Your task to perform on an android device: create a new album in the google photos Image 0: 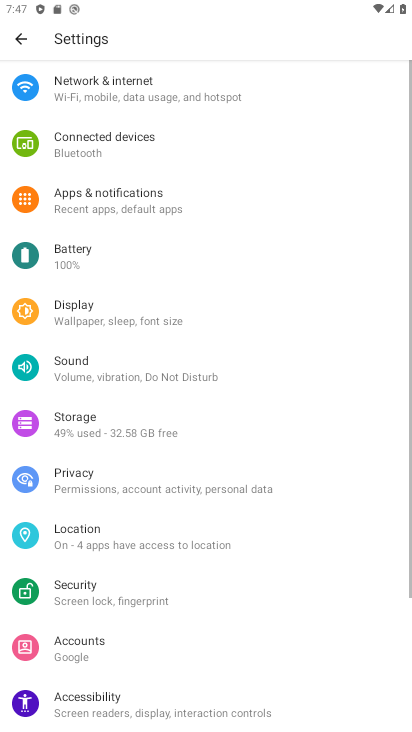
Step 0: press home button
Your task to perform on an android device: create a new album in the google photos Image 1: 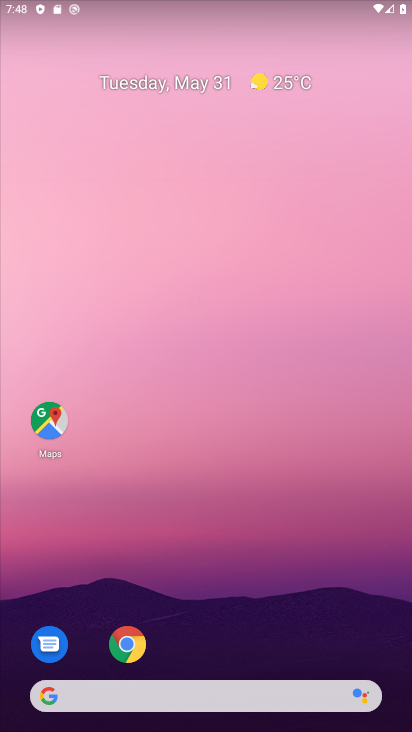
Step 1: click (294, 306)
Your task to perform on an android device: create a new album in the google photos Image 2: 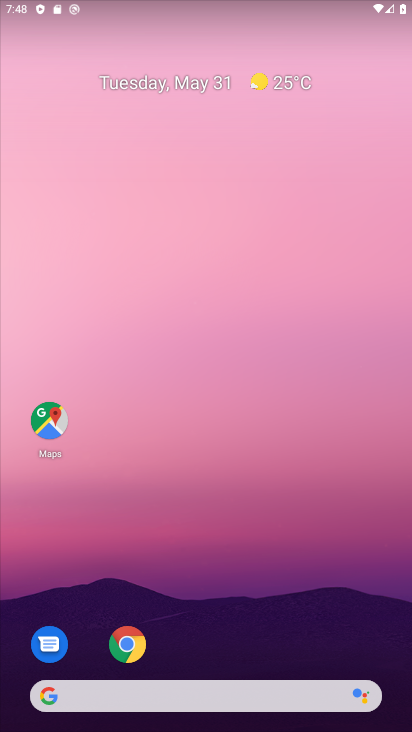
Step 2: drag from (203, 712) to (233, 232)
Your task to perform on an android device: create a new album in the google photos Image 3: 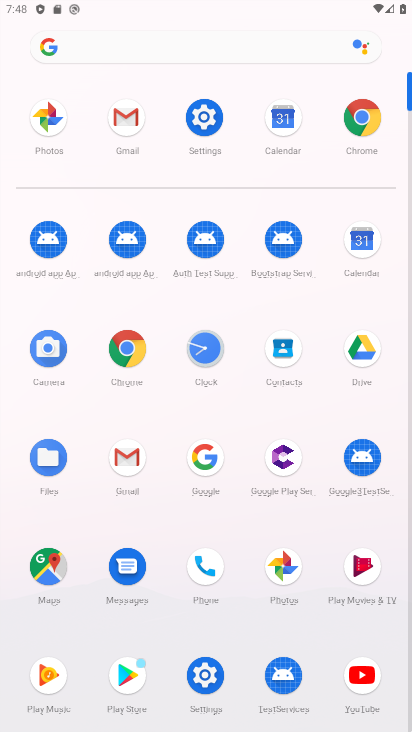
Step 3: click (292, 561)
Your task to perform on an android device: create a new album in the google photos Image 4: 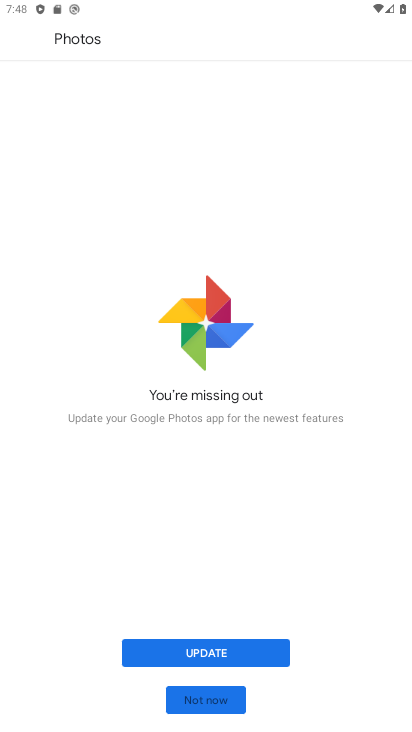
Step 4: click (201, 651)
Your task to perform on an android device: create a new album in the google photos Image 5: 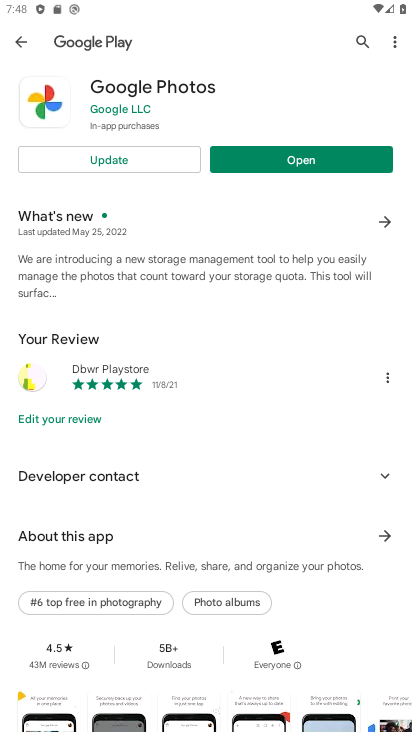
Step 5: click (96, 169)
Your task to perform on an android device: create a new album in the google photos Image 6: 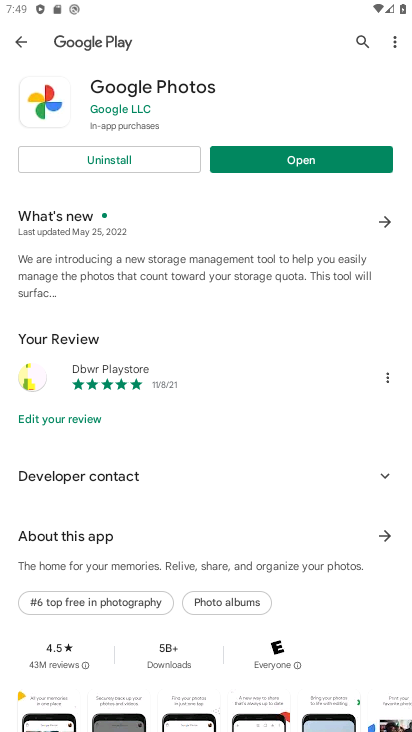
Step 6: click (280, 150)
Your task to perform on an android device: create a new album in the google photos Image 7: 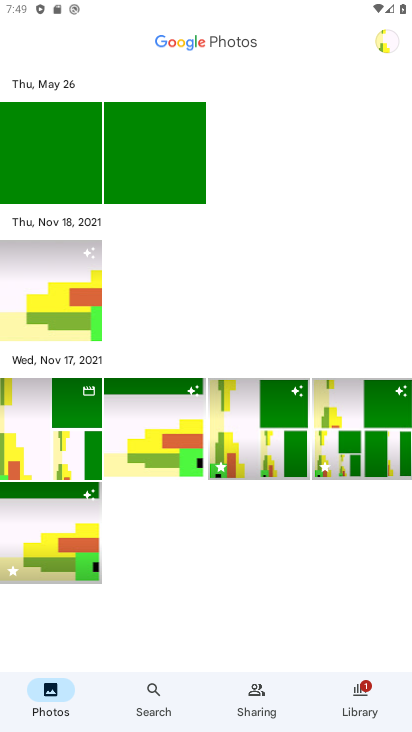
Step 7: click (166, 412)
Your task to perform on an android device: create a new album in the google photos Image 8: 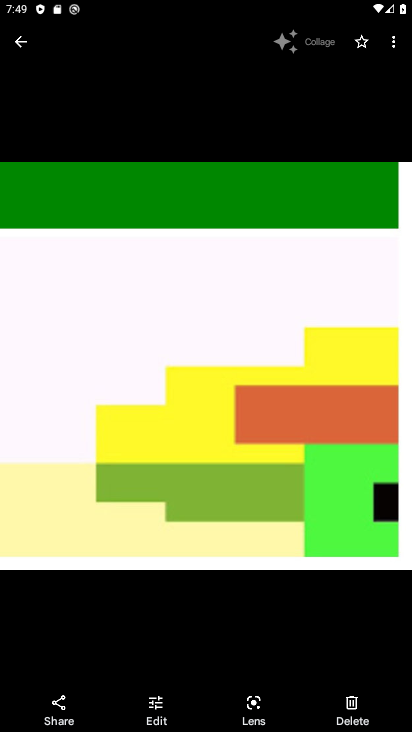
Step 8: click (396, 41)
Your task to perform on an android device: create a new album in the google photos Image 9: 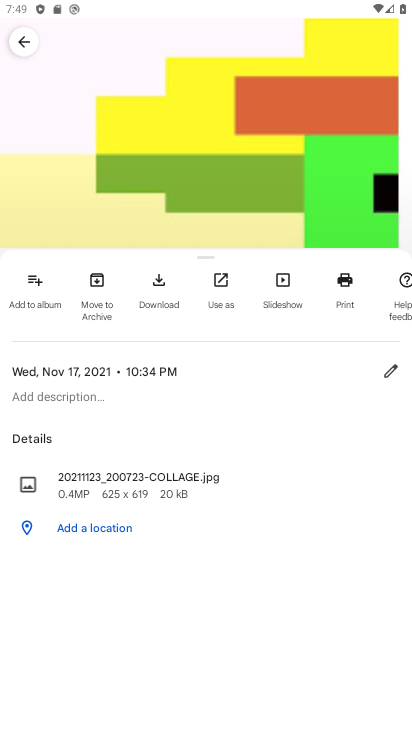
Step 9: click (34, 290)
Your task to perform on an android device: create a new album in the google photos Image 10: 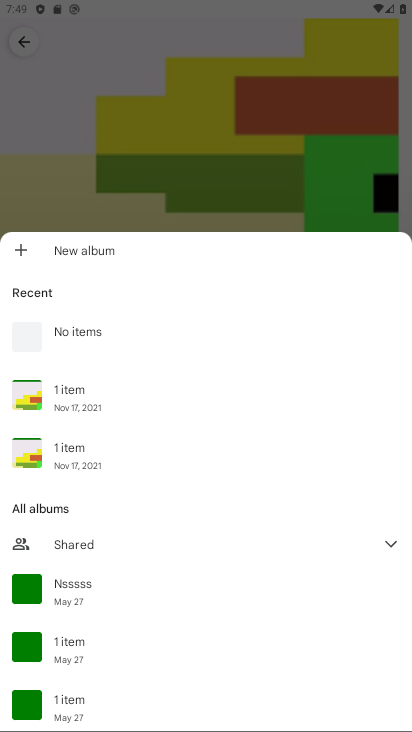
Step 10: click (27, 248)
Your task to perform on an android device: create a new album in the google photos Image 11: 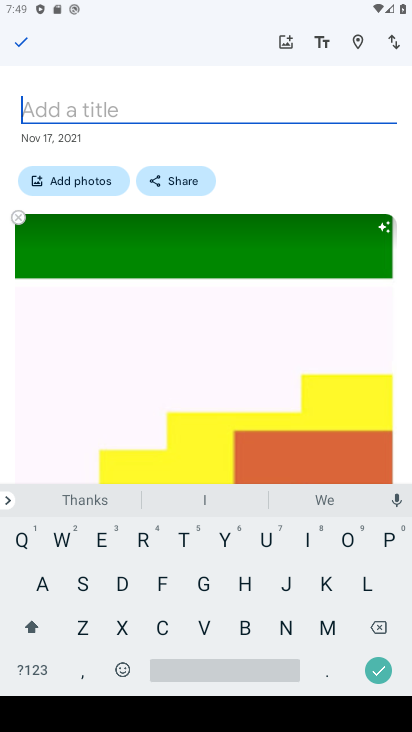
Step 11: click (194, 584)
Your task to perform on an android device: create a new album in the google photos Image 12: 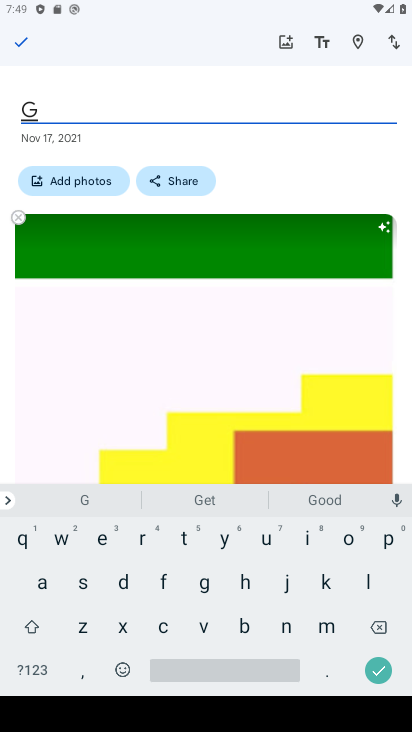
Step 12: click (200, 626)
Your task to perform on an android device: create a new album in the google photos Image 13: 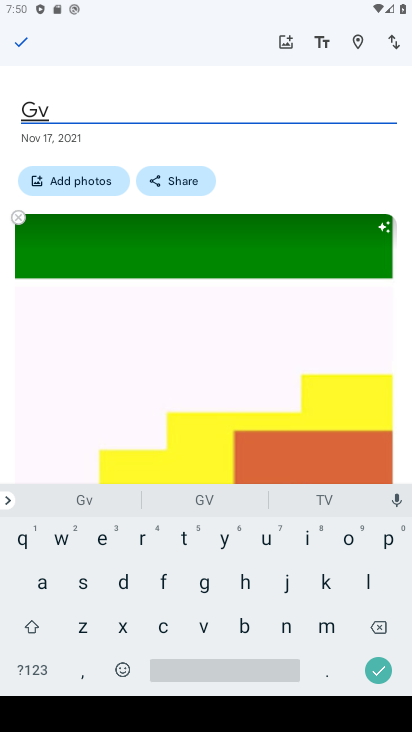
Step 13: click (136, 584)
Your task to perform on an android device: create a new album in the google photos Image 14: 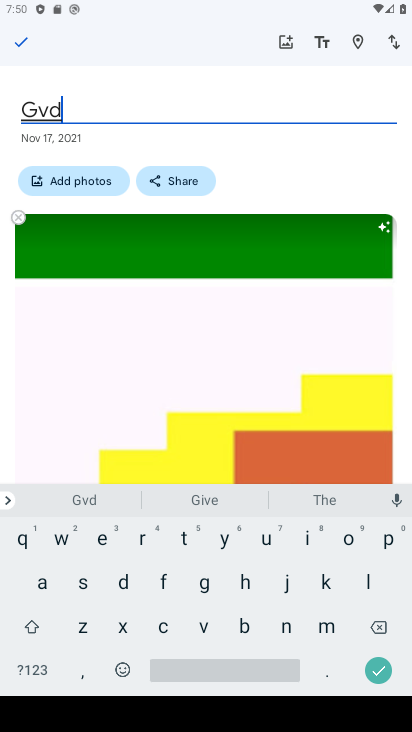
Step 14: click (24, 34)
Your task to perform on an android device: create a new album in the google photos Image 15: 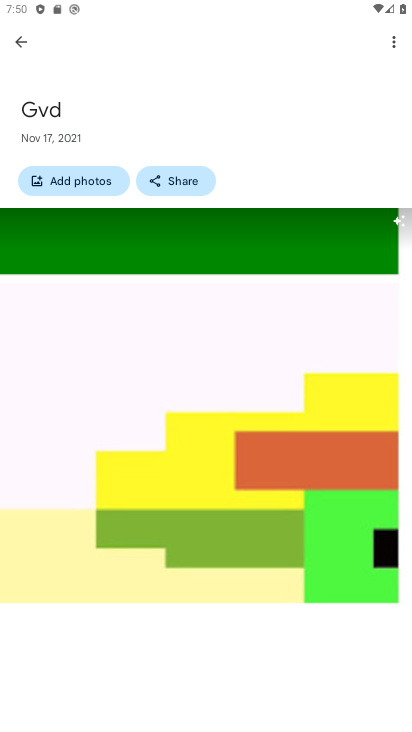
Step 15: task complete